Your task to perform on an android device: turn vacation reply on in the gmail app Image 0: 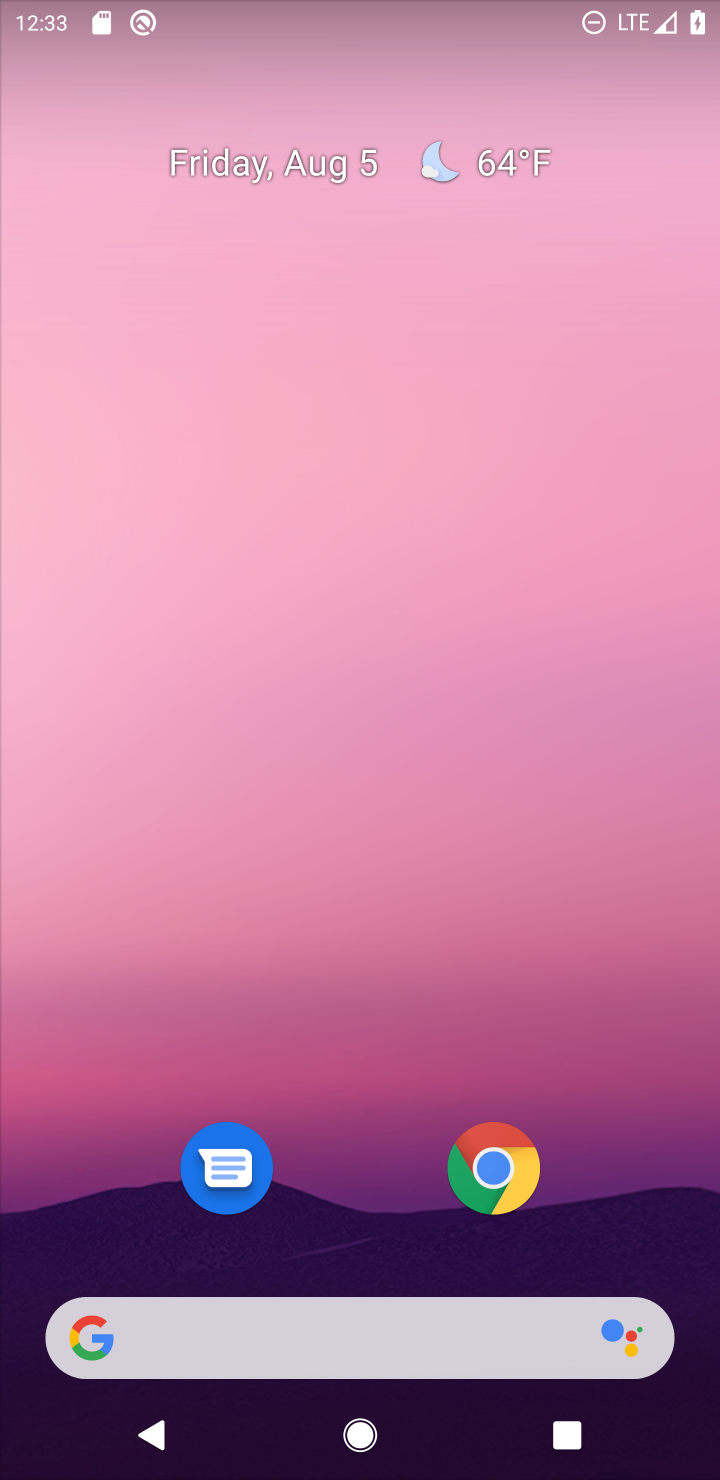
Step 0: drag from (651, 1039) to (321, 57)
Your task to perform on an android device: turn vacation reply on in the gmail app Image 1: 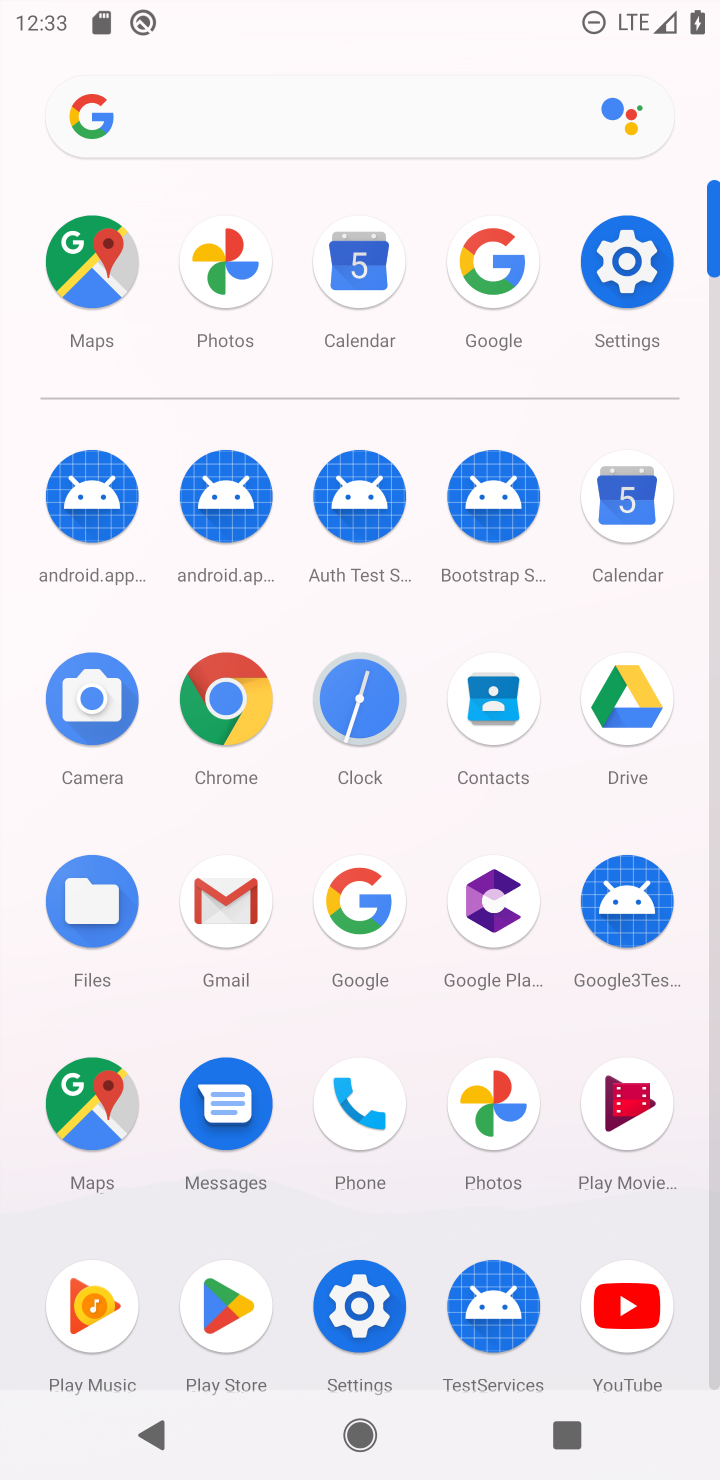
Step 1: click (200, 889)
Your task to perform on an android device: turn vacation reply on in the gmail app Image 2: 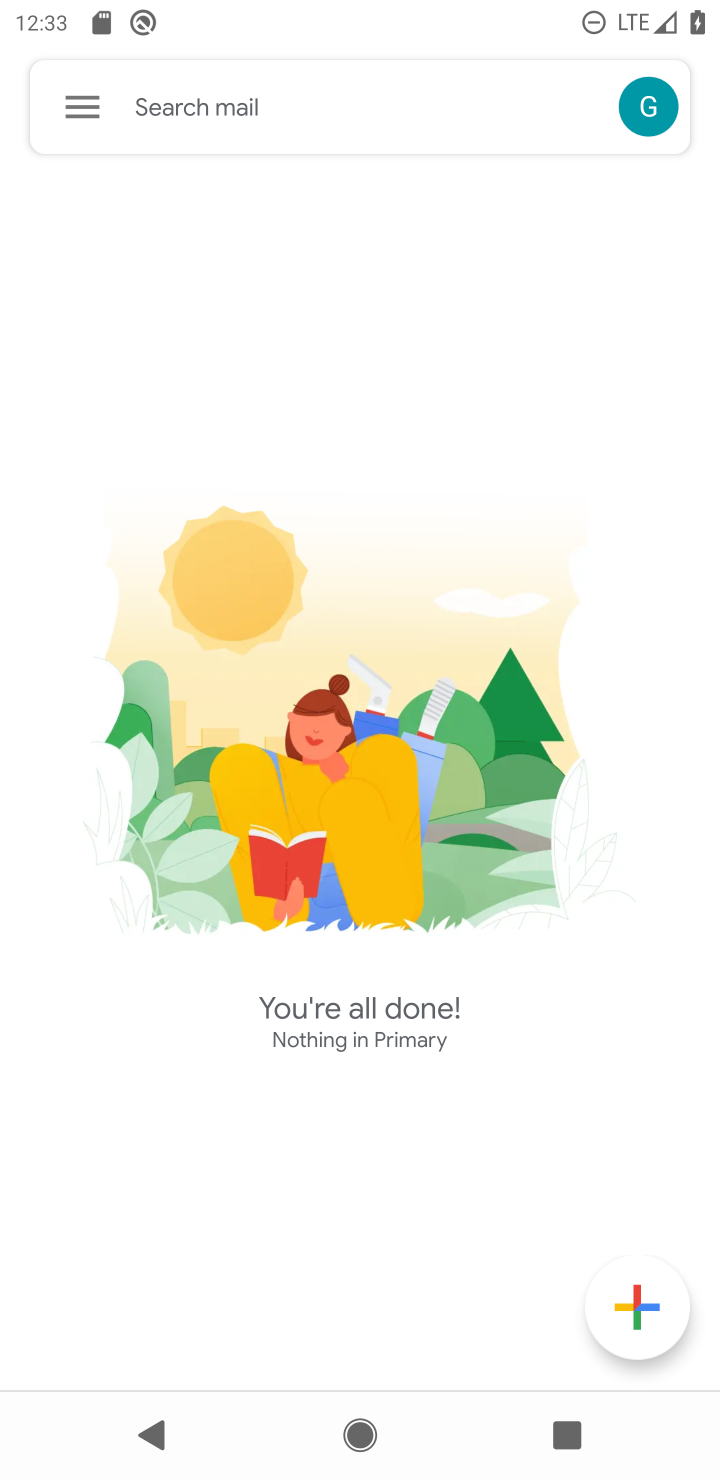
Step 2: click (80, 63)
Your task to perform on an android device: turn vacation reply on in the gmail app Image 3: 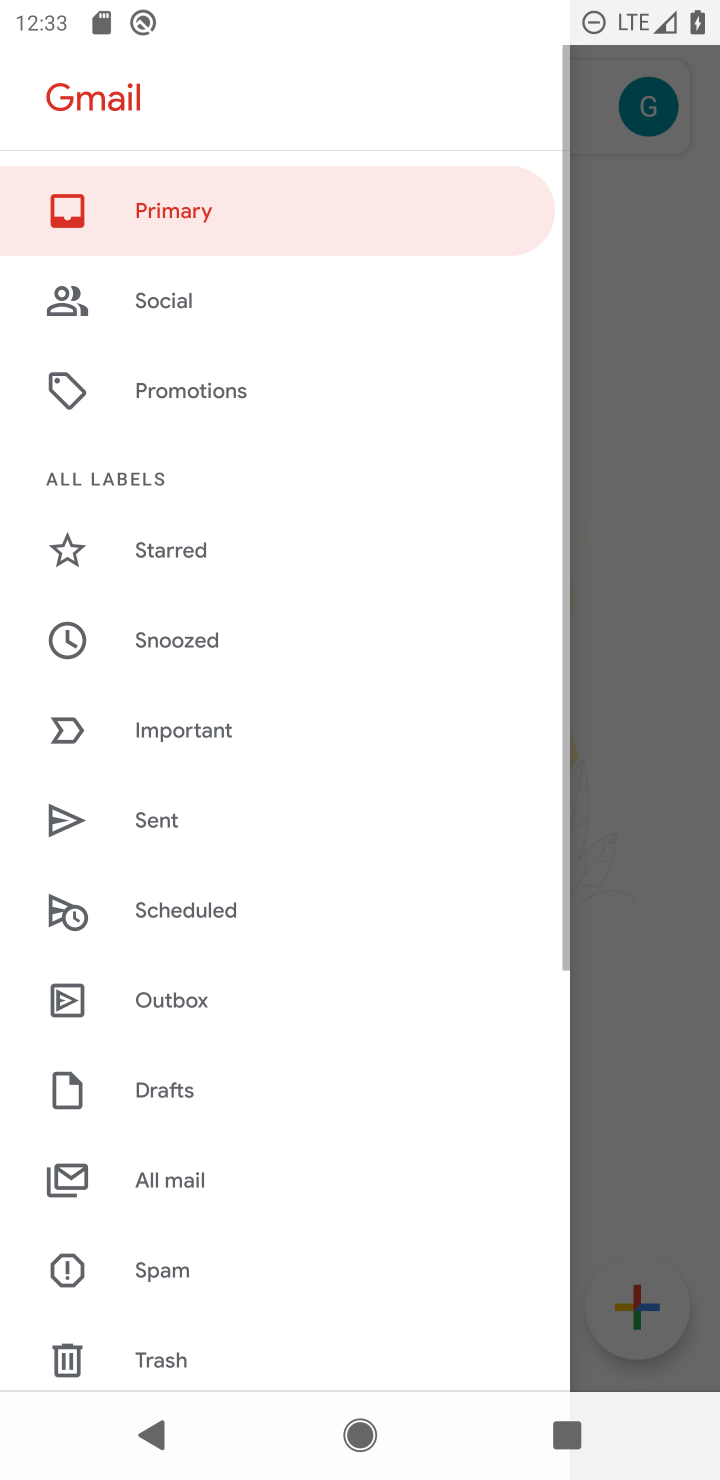
Step 3: drag from (161, 1330) to (344, 32)
Your task to perform on an android device: turn vacation reply on in the gmail app Image 4: 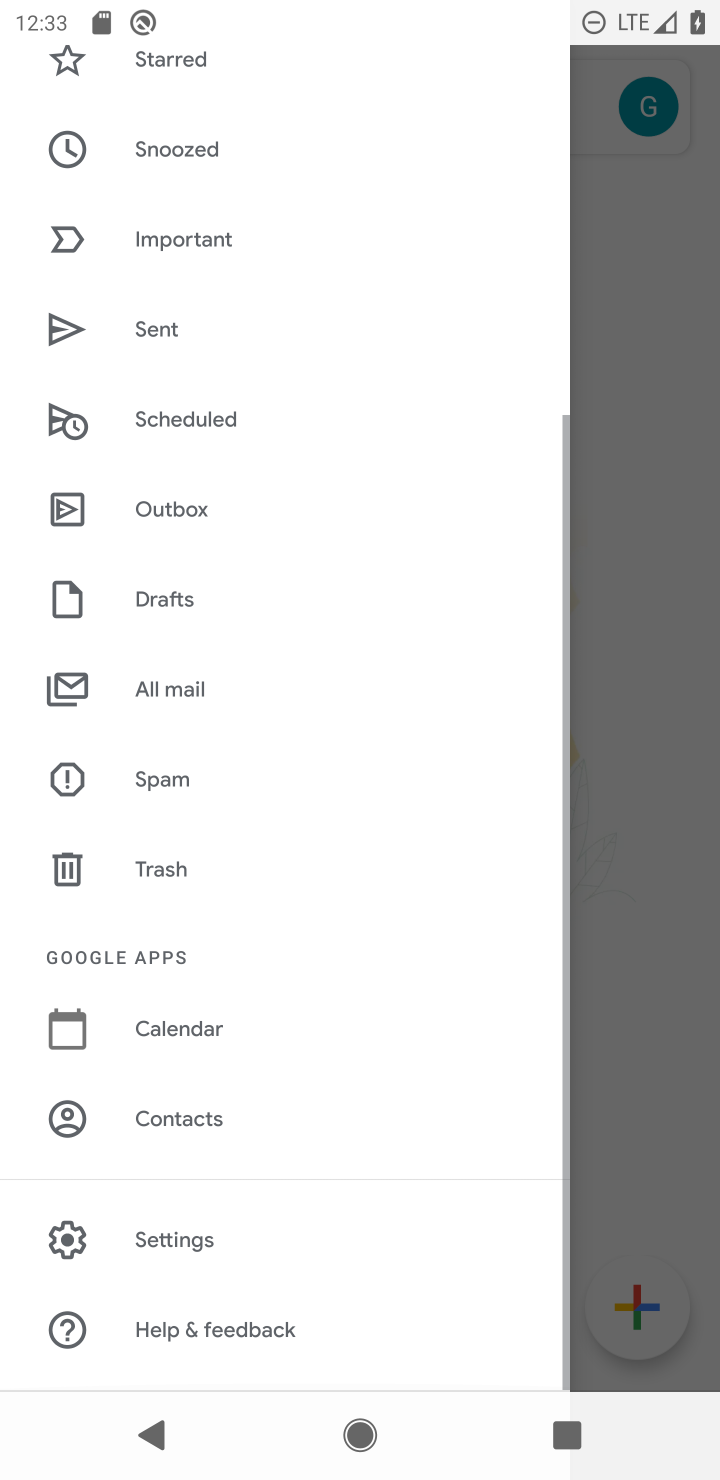
Step 4: click (234, 1213)
Your task to perform on an android device: turn vacation reply on in the gmail app Image 5: 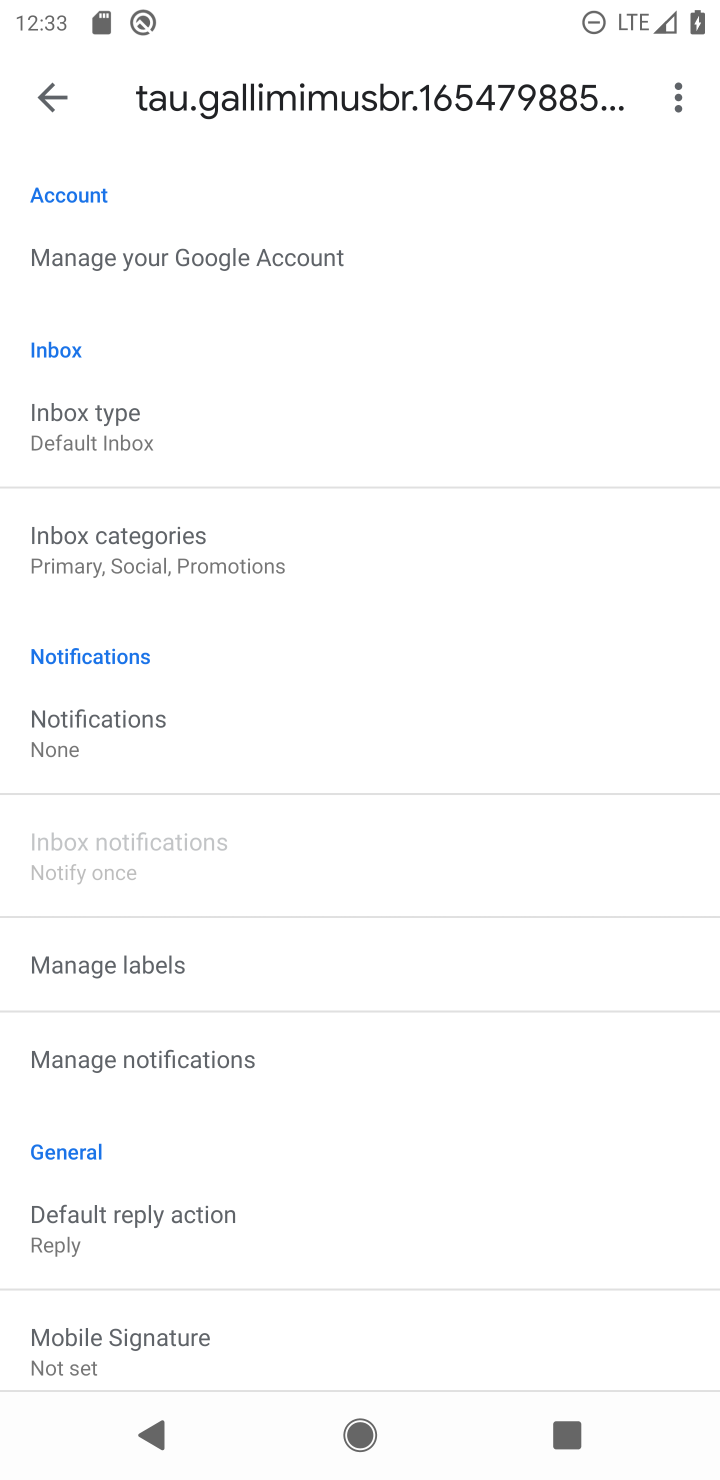
Step 5: drag from (216, 1325) to (353, 87)
Your task to perform on an android device: turn vacation reply on in the gmail app Image 6: 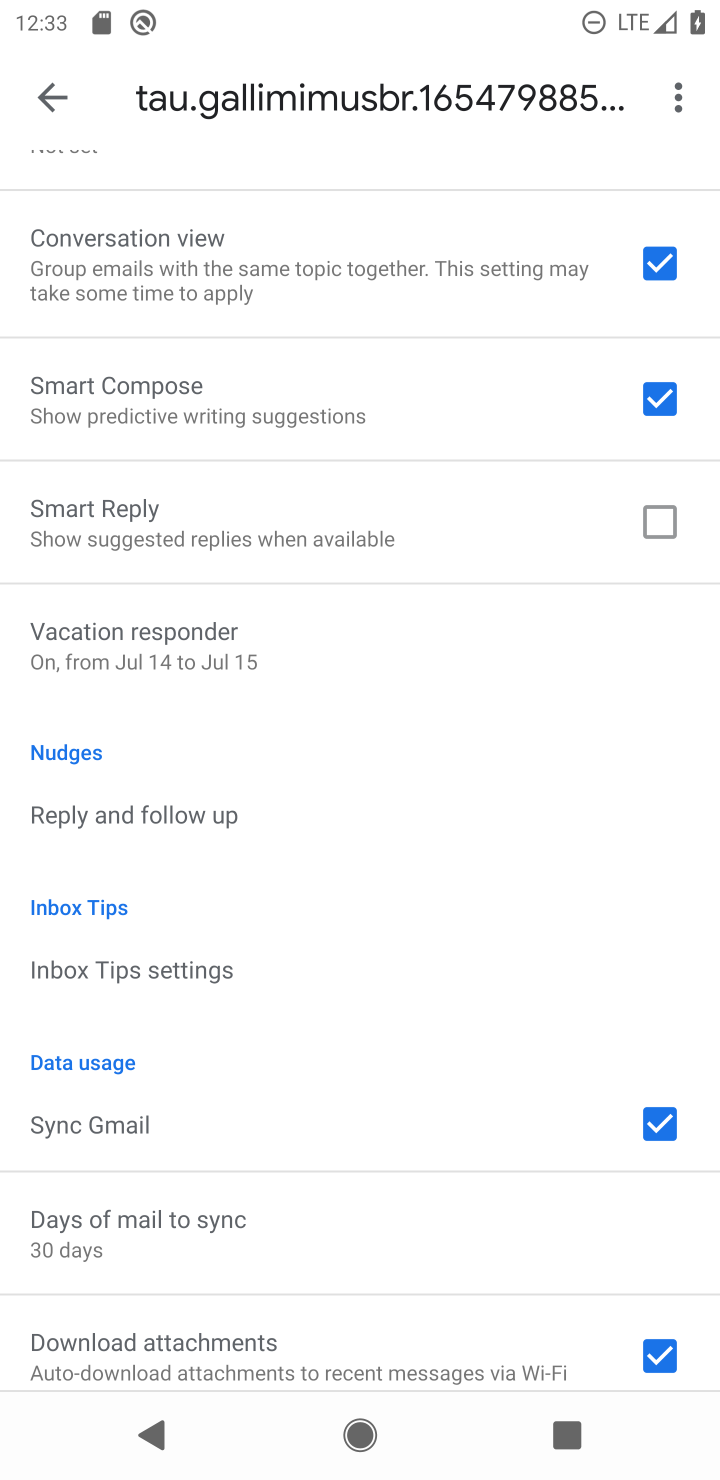
Step 6: click (264, 625)
Your task to perform on an android device: turn vacation reply on in the gmail app Image 7: 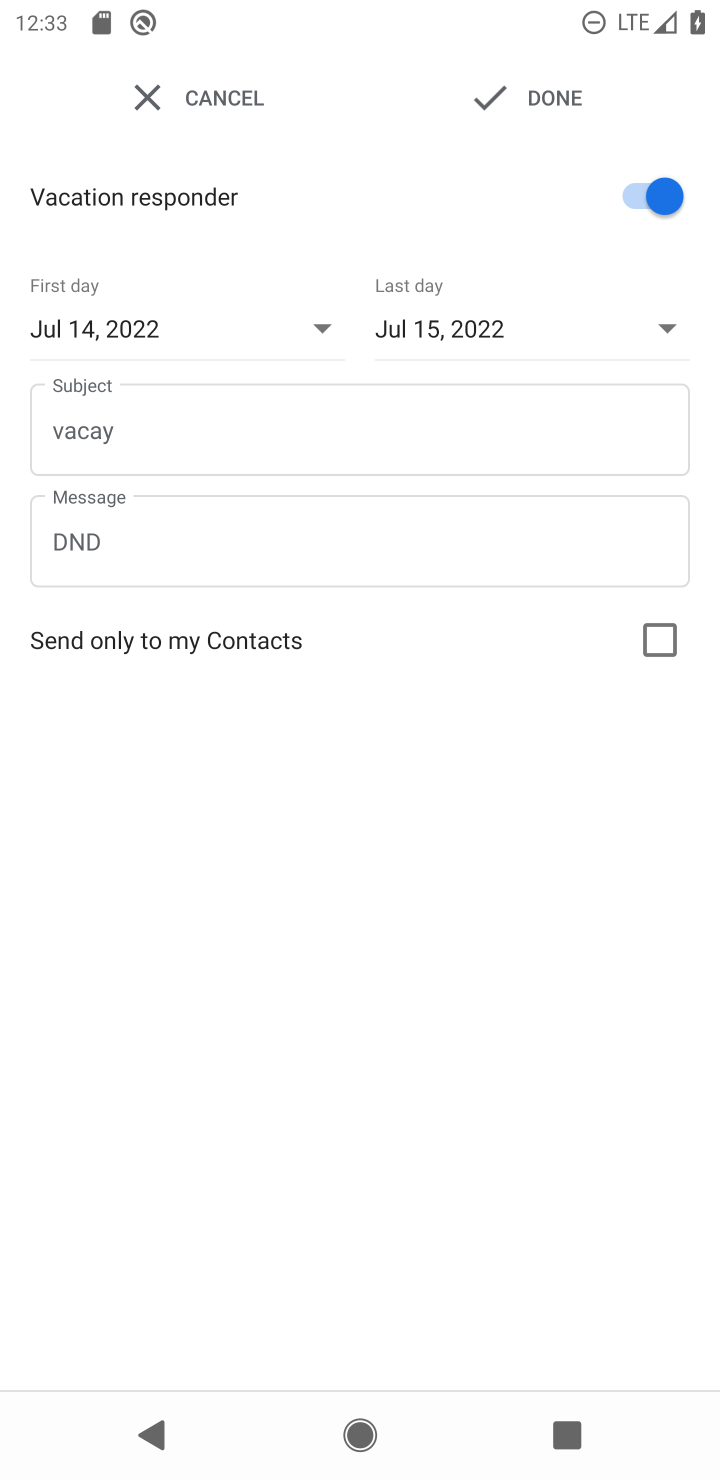
Step 7: task complete